Your task to perform on an android device: Open sound settings Image 0: 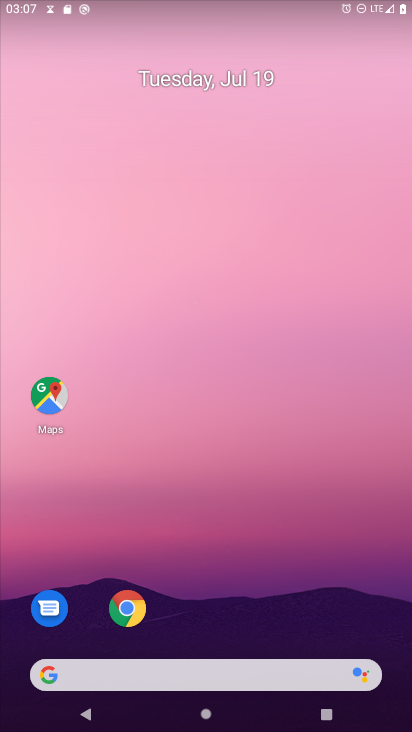
Step 0: drag from (305, 668) to (326, 3)
Your task to perform on an android device: Open sound settings Image 1: 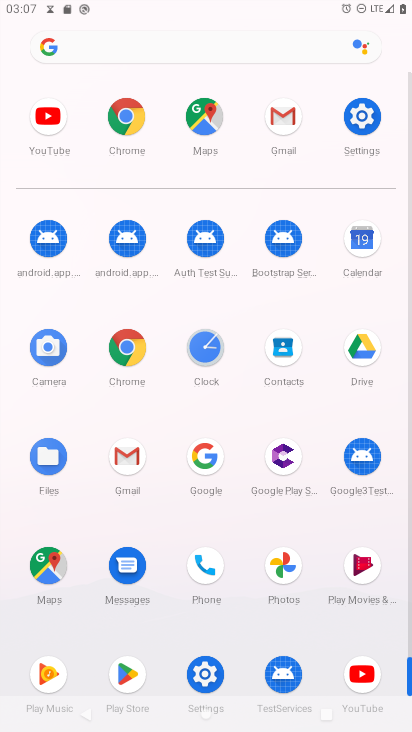
Step 1: click (363, 104)
Your task to perform on an android device: Open sound settings Image 2: 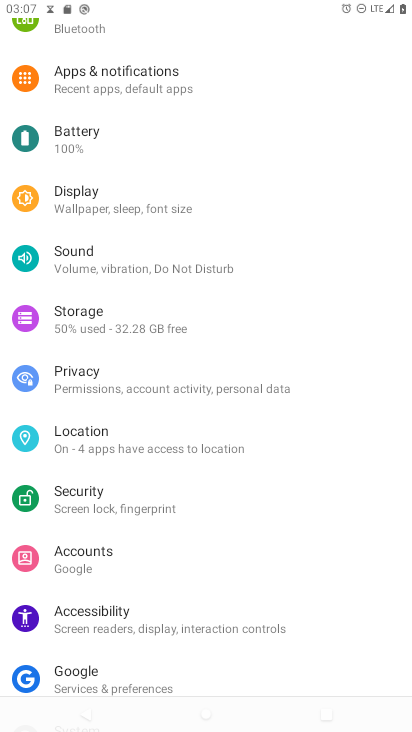
Step 2: click (121, 255)
Your task to perform on an android device: Open sound settings Image 3: 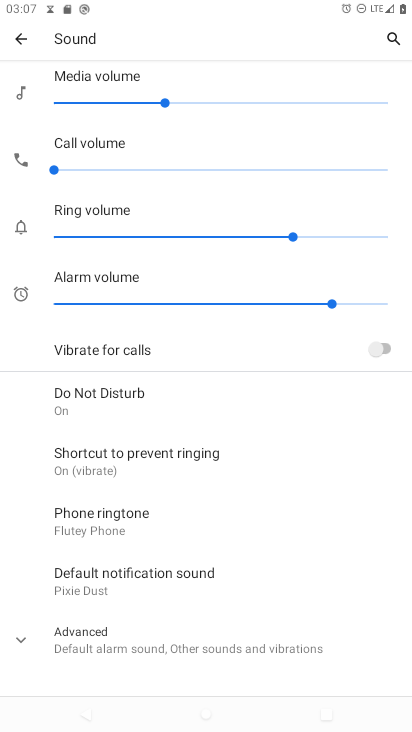
Step 3: task complete